Your task to perform on an android device: Open Google Maps and go to "Timeline" Image 0: 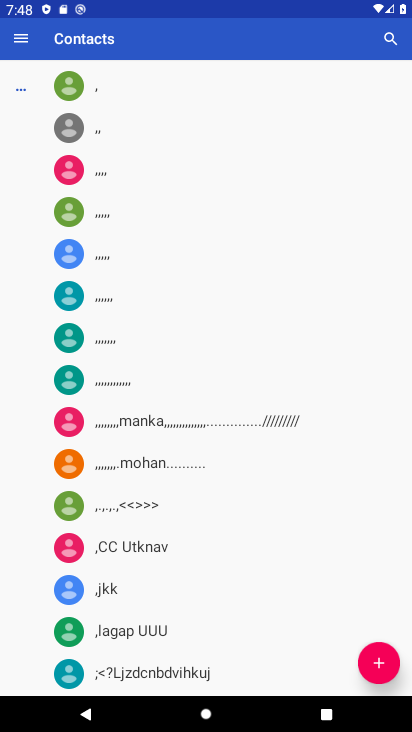
Step 0: press home button
Your task to perform on an android device: Open Google Maps and go to "Timeline" Image 1: 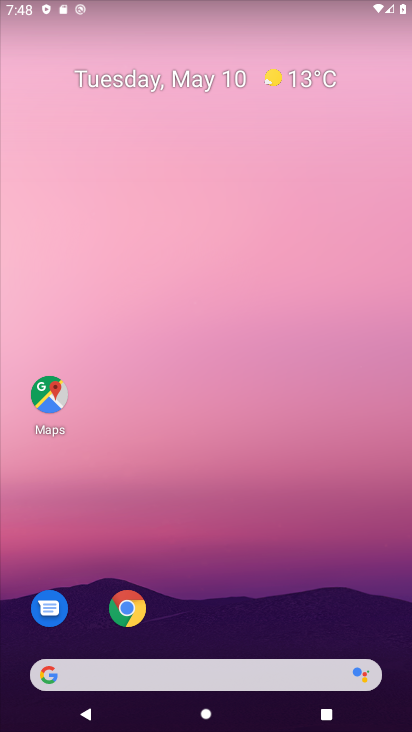
Step 1: drag from (171, 671) to (297, 81)
Your task to perform on an android device: Open Google Maps and go to "Timeline" Image 2: 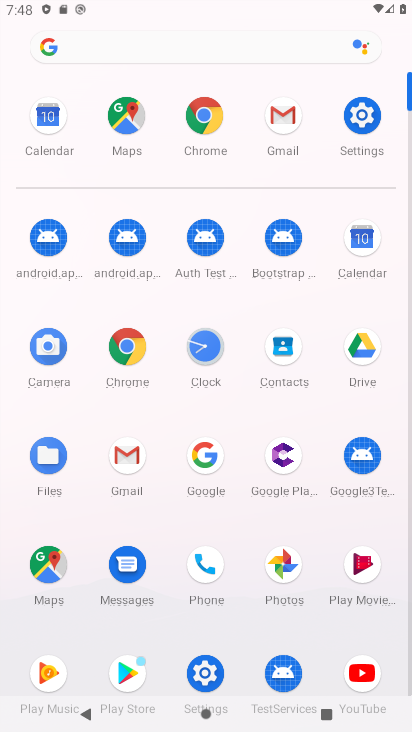
Step 2: click (49, 578)
Your task to perform on an android device: Open Google Maps and go to "Timeline" Image 3: 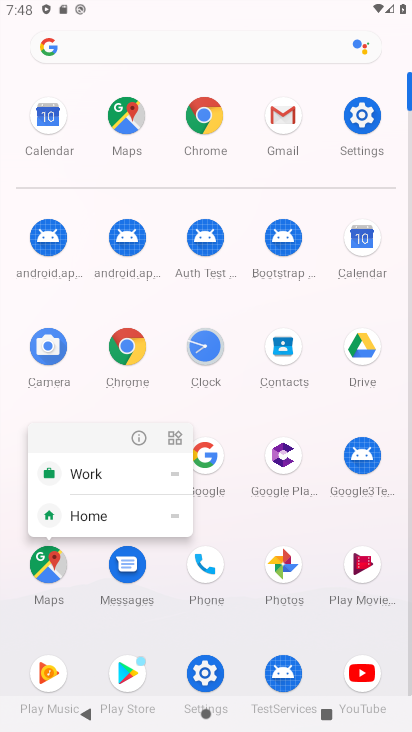
Step 3: click (45, 561)
Your task to perform on an android device: Open Google Maps and go to "Timeline" Image 4: 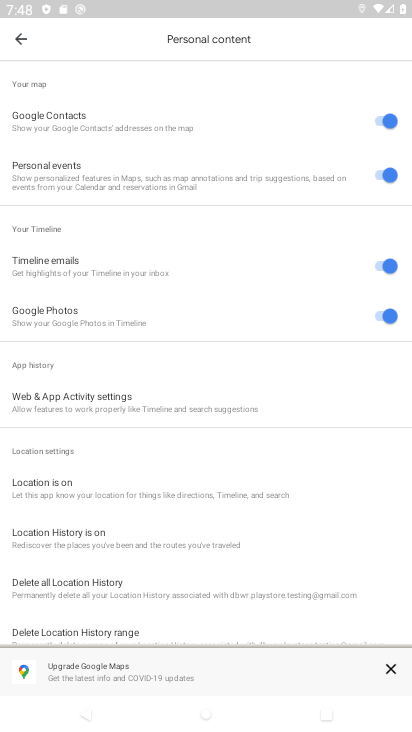
Step 4: click (18, 42)
Your task to perform on an android device: Open Google Maps and go to "Timeline" Image 5: 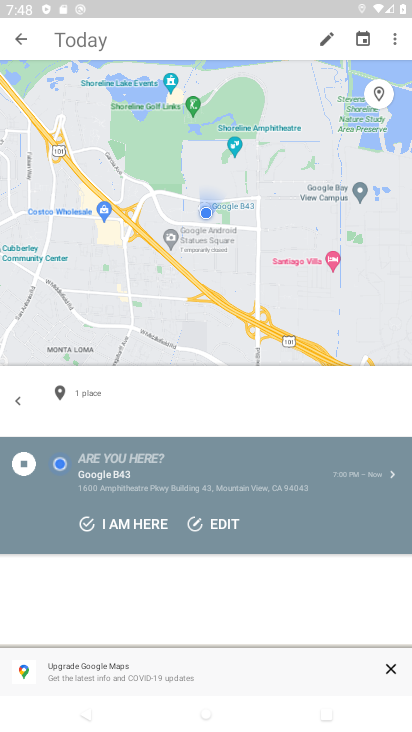
Step 5: task complete